Your task to perform on an android device: Set the phone to "Do not disturb". Image 0: 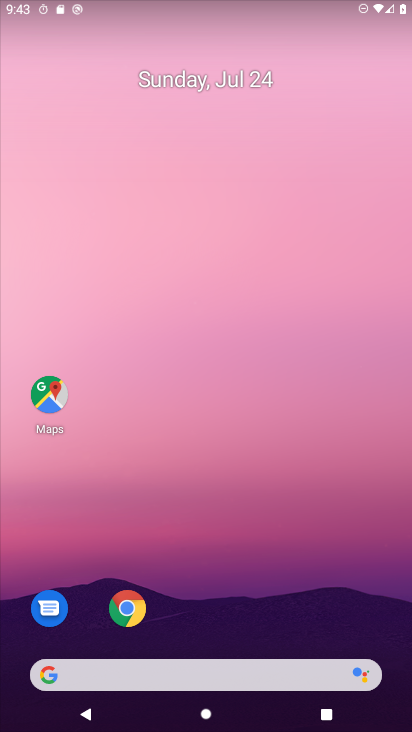
Step 0: drag from (189, 572) to (367, 40)
Your task to perform on an android device: Set the phone to "Do not disturb". Image 1: 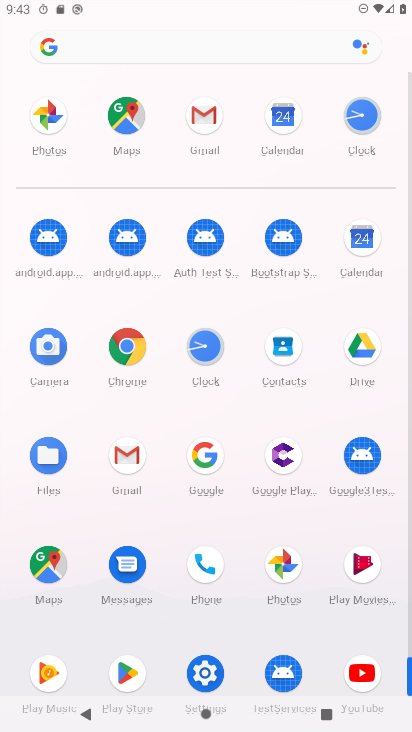
Step 1: click (215, 673)
Your task to perform on an android device: Set the phone to "Do not disturb". Image 2: 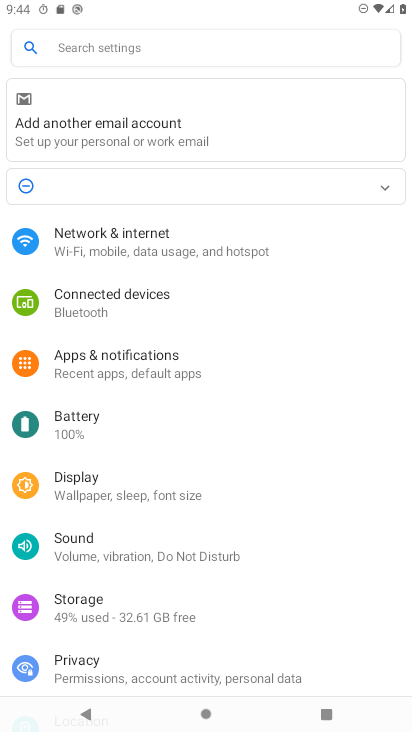
Step 2: drag from (190, 639) to (239, 266)
Your task to perform on an android device: Set the phone to "Do not disturb". Image 3: 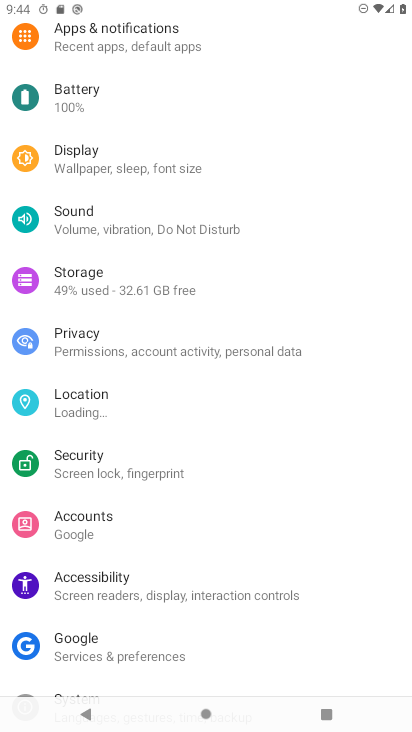
Step 3: click (169, 37)
Your task to perform on an android device: Set the phone to "Do not disturb". Image 4: 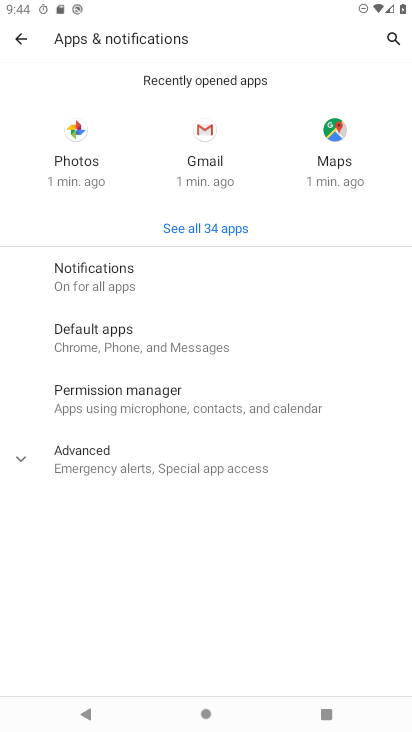
Step 4: click (120, 482)
Your task to perform on an android device: Set the phone to "Do not disturb". Image 5: 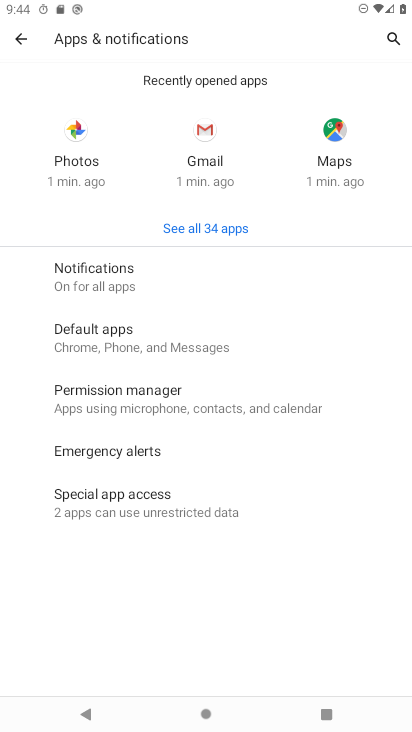
Step 5: click (145, 512)
Your task to perform on an android device: Set the phone to "Do not disturb". Image 6: 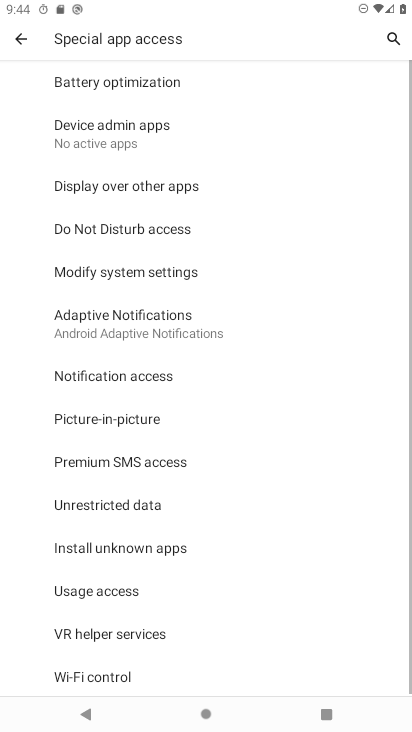
Step 6: drag from (151, 517) to (134, 226)
Your task to perform on an android device: Set the phone to "Do not disturb". Image 7: 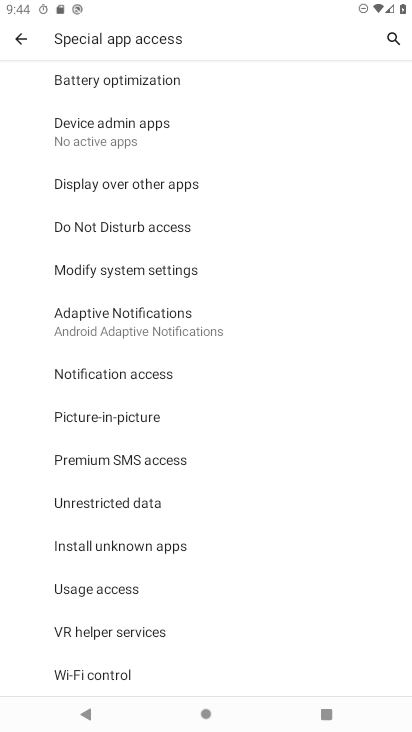
Step 7: drag from (142, 220) to (142, 710)
Your task to perform on an android device: Set the phone to "Do not disturb". Image 8: 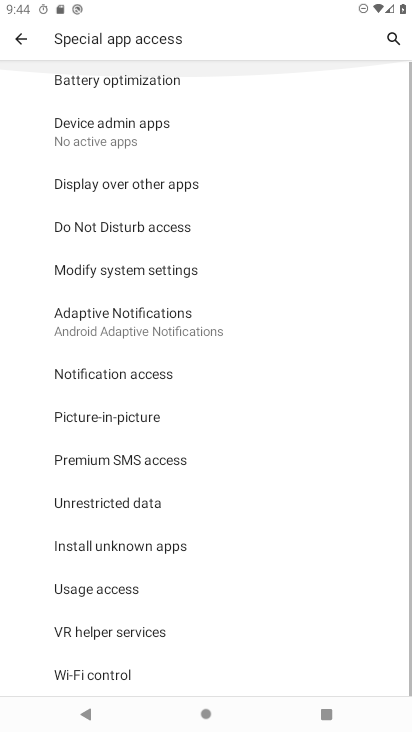
Step 8: click (17, 41)
Your task to perform on an android device: Set the phone to "Do not disturb". Image 9: 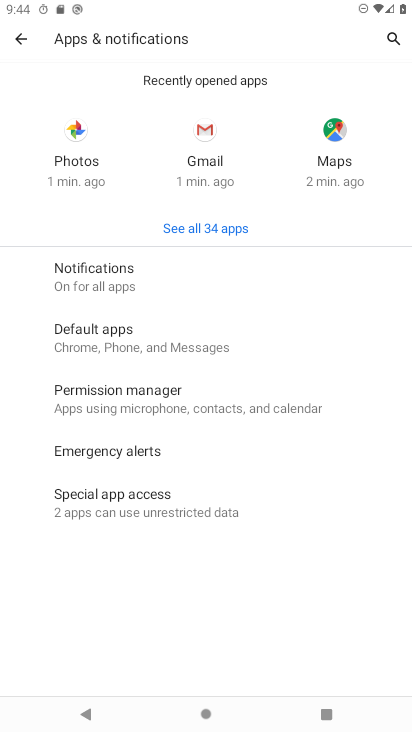
Step 9: click (145, 284)
Your task to perform on an android device: Set the phone to "Do not disturb". Image 10: 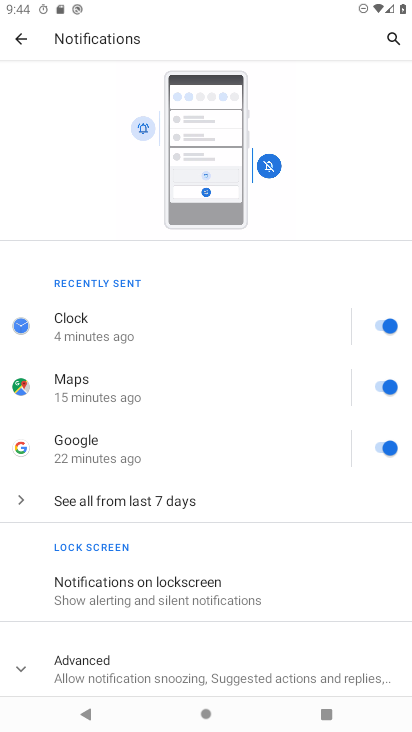
Step 10: drag from (240, 597) to (221, 268)
Your task to perform on an android device: Set the phone to "Do not disturb". Image 11: 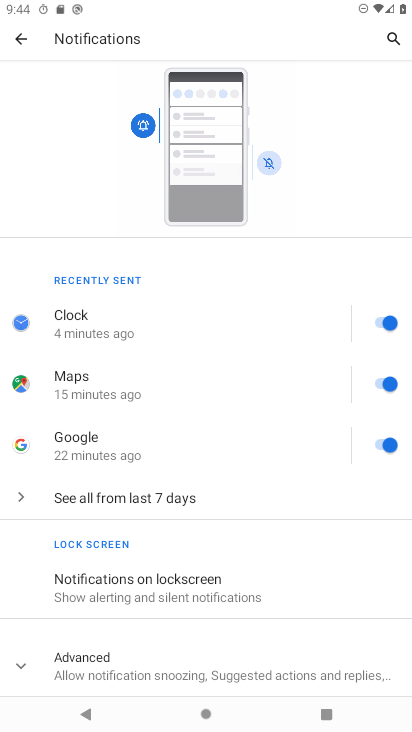
Step 11: click (159, 673)
Your task to perform on an android device: Set the phone to "Do not disturb". Image 12: 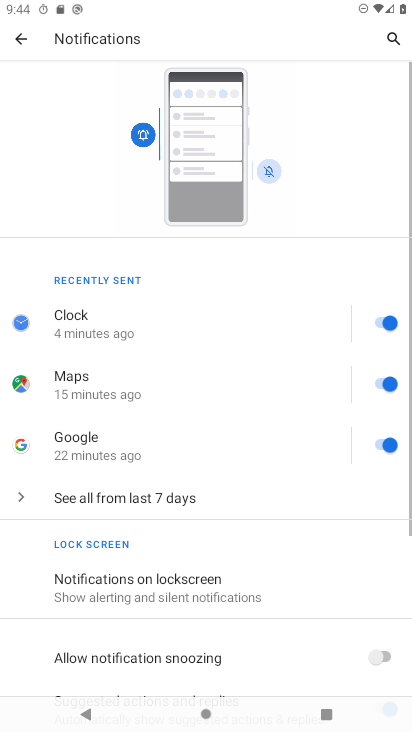
Step 12: drag from (162, 666) to (206, 243)
Your task to perform on an android device: Set the phone to "Do not disturb". Image 13: 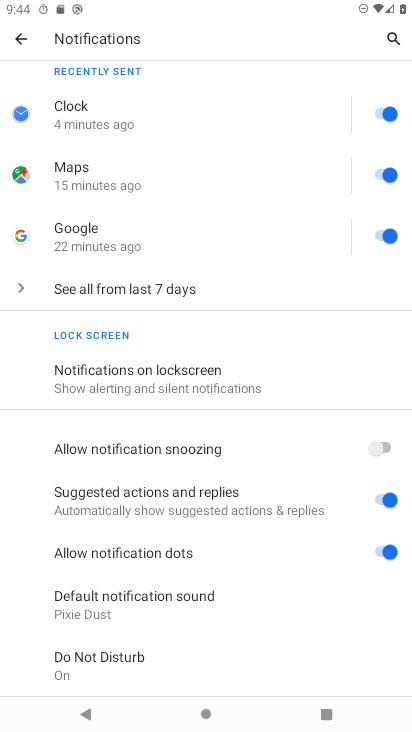
Step 13: click (160, 652)
Your task to perform on an android device: Set the phone to "Do not disturb". Image 14: 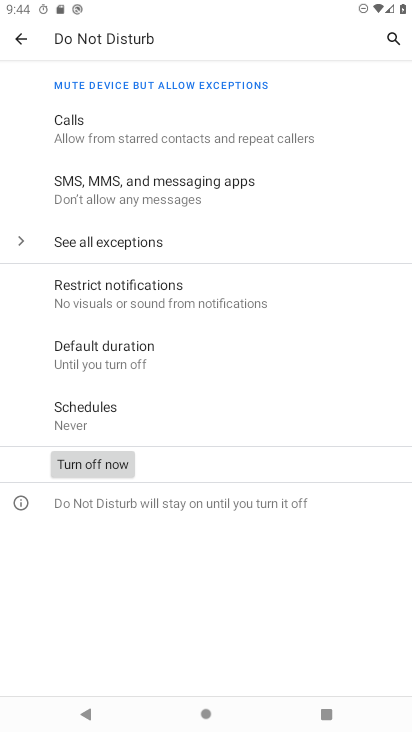
Step 14: task complete